Your task to perform on an android device: Open internet settings Image 0: 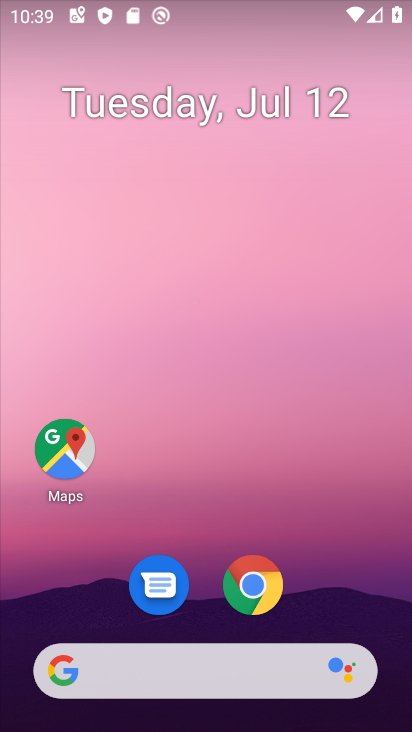
Step 0: drag from (324, 573) to (286, 15)
Your task to perform on an android device: Open internet settings Image 1: 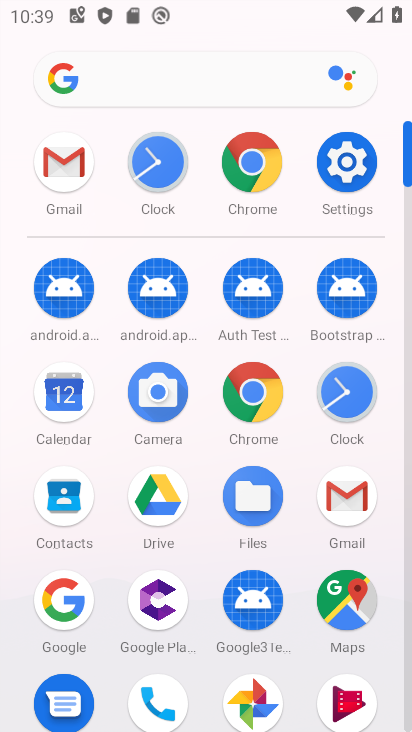
Step 1: click (340, 165)
Your task to perform on an android device: Open internet settings Image 2: 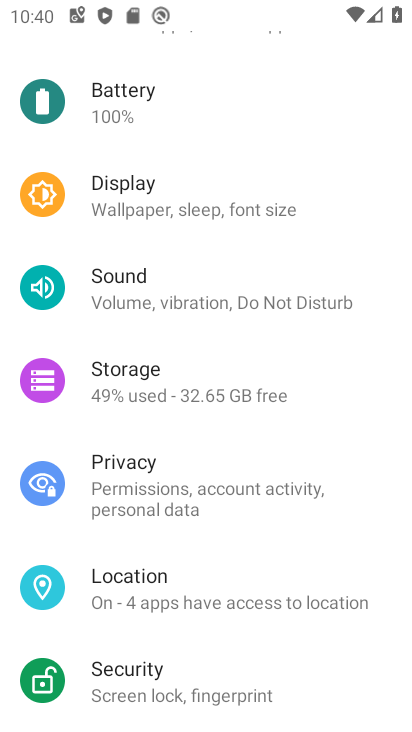
Step 2: drag from (212, 242) to (212, 635)
Your task to perform on an android device: Open internet settings Image 3: 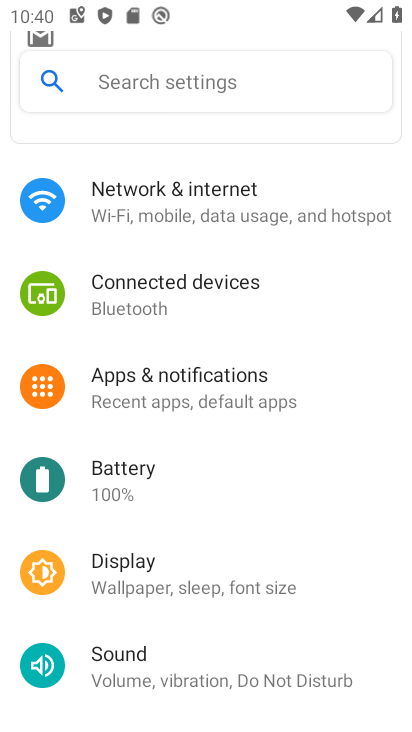
Step 3: click (224, 197)
Your task to perform on an android device: Open internet settings Image 4: 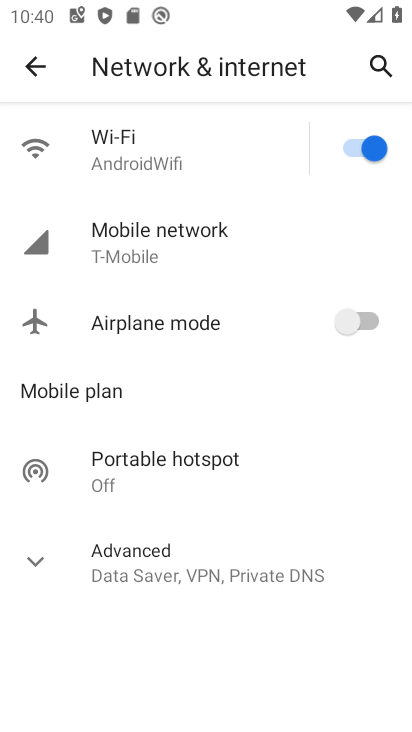
Step 4: task complete